Your task to perform on an android device: Open the map Image 0: 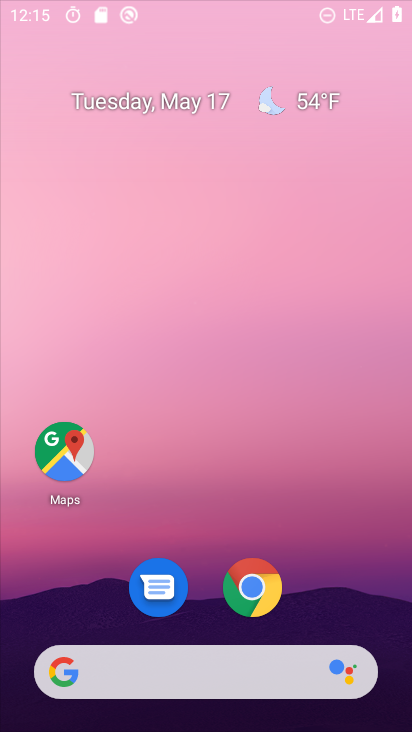
Step 0: drag from (195, 592) to (280, 128)
Your task to perform on an android device: Open the map Image 1: 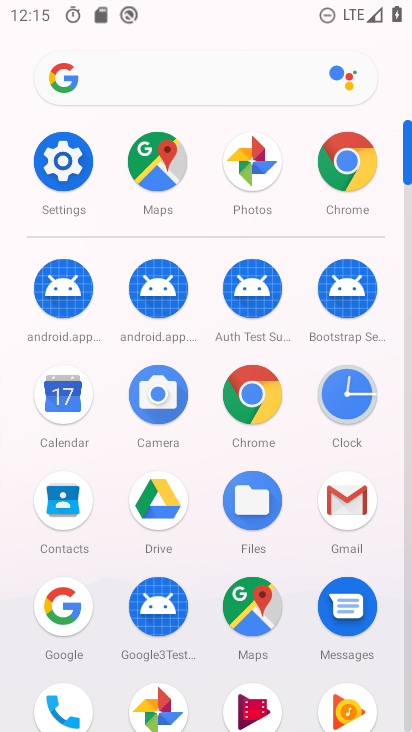
Step 1: click (229, 610)
Your task to perform on an android device: Open the map Image 2: 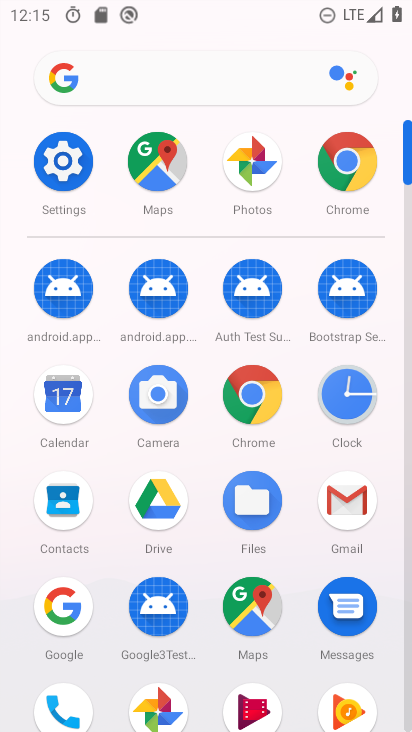
Step 2: click (229, 610)
Your task to perform on an android device: Open the map Image 3: 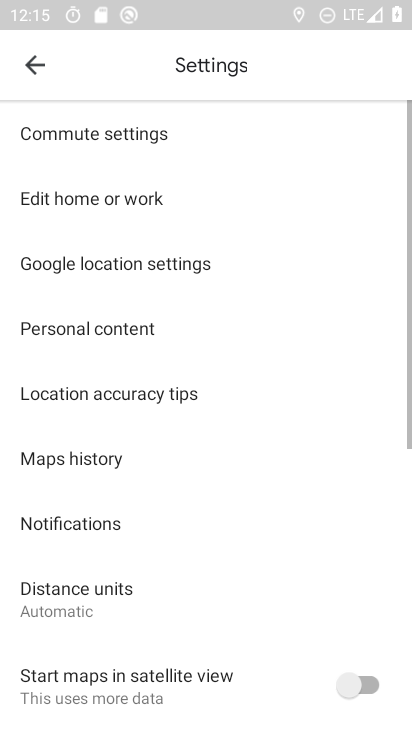
Step 3: drag from (231, 616) to (285, 207)
Your task to perform on an android device: Open the map Image 4: 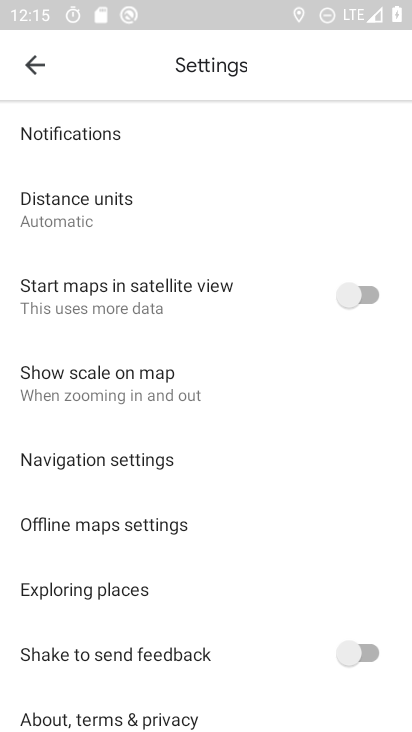
Step 4: drag from (224, 677) to (302, 213)
Your task to perform on an android device: Open the map Image 5: 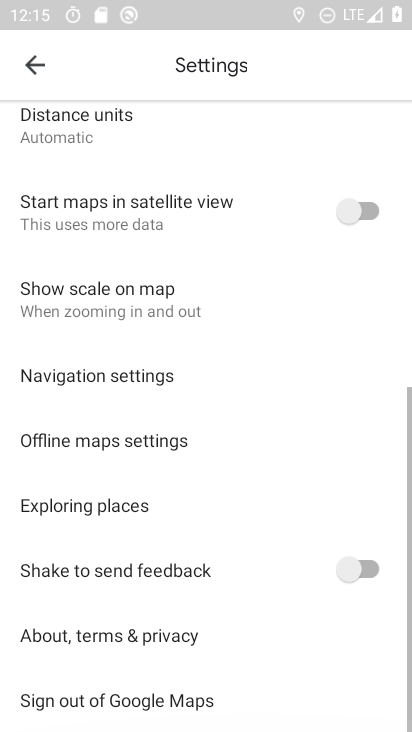
Step 5: drag from (301, 210) to (214, 731)
Your task to perform on an android device: Open the map Image 6: 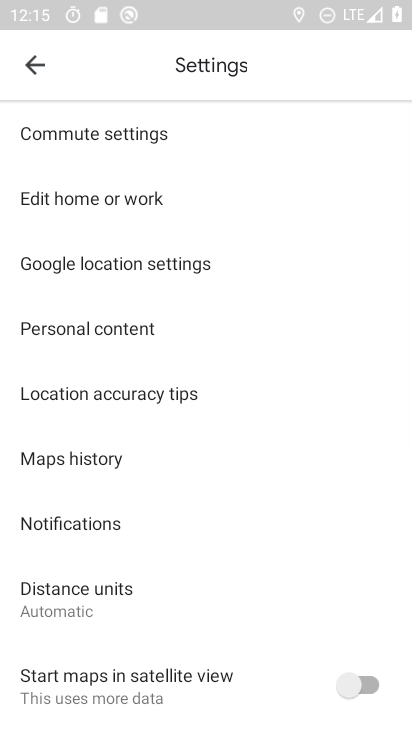
Step 6: click (33, 63)
Your task to perform on an android device: Open the map Image 7: 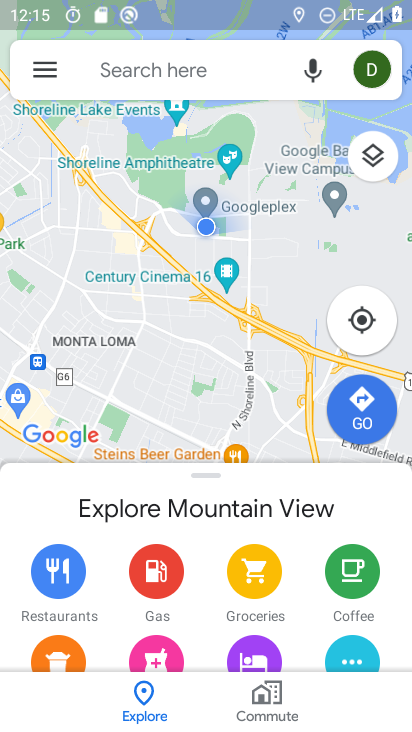
Step 7: task complete